Your task to perform on an android device: Open Android settings Image 0: 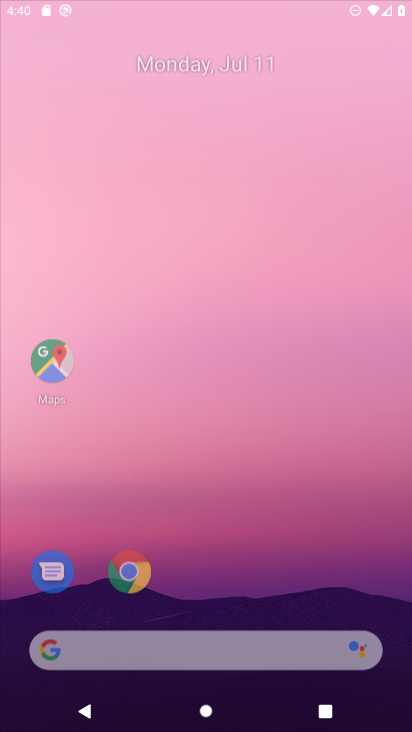
Step 0: press home button
Your task to perform on an android device: Open Android settings Image 1: 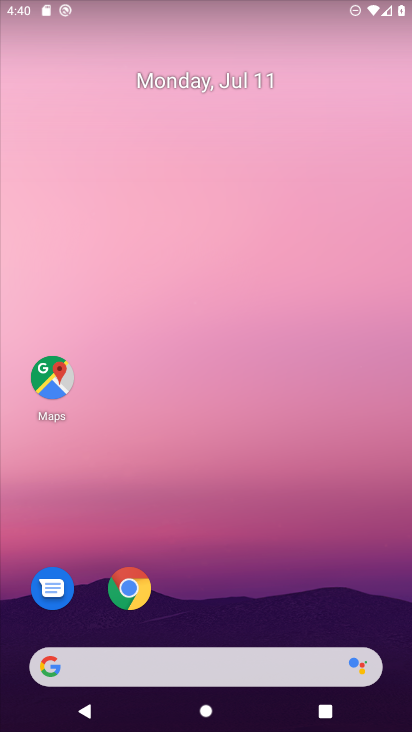
Step 1: drag from (271, 560) to (276, 21)
Your task to perform on an android device: Open Android settings Image 2: 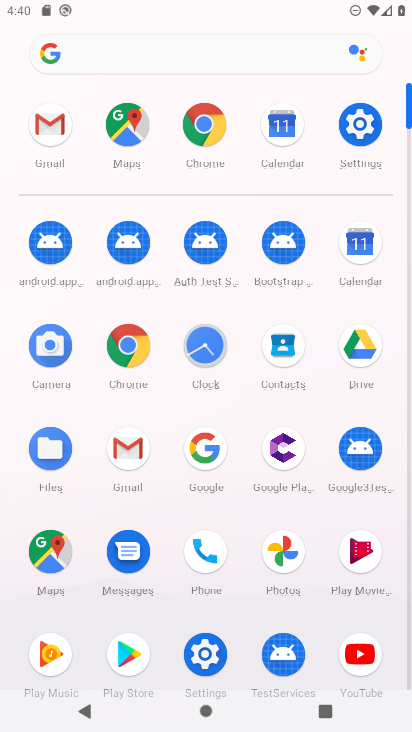
Step 2: click (357, 139)
Your task to perform on an android device: Open Android settings Image 3: 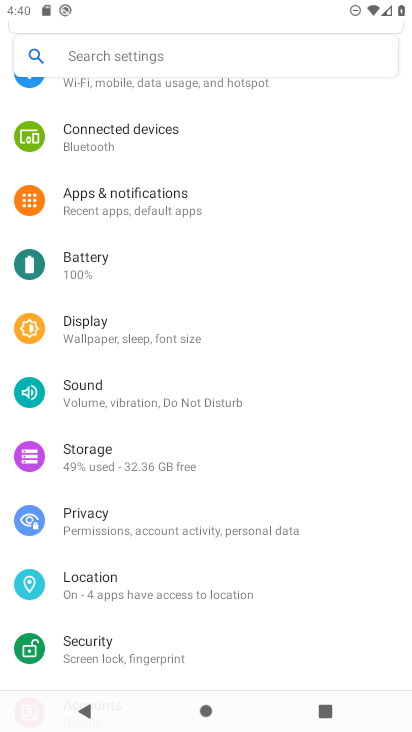
Step 3: task complete